Your task to perform on an android device: Go to network settings Image 0: 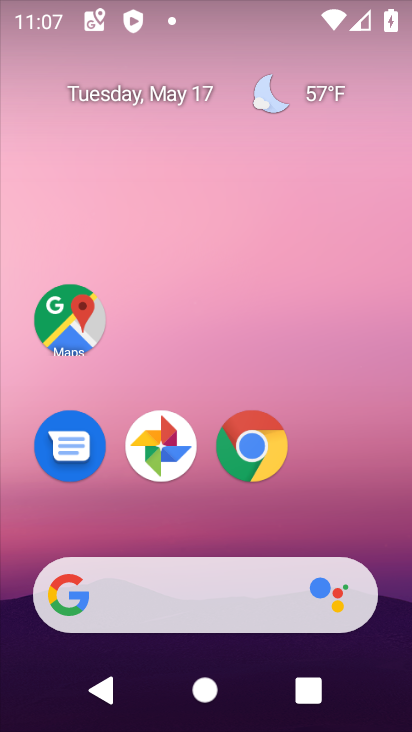
Step 0: drag from (231, 604) to (253, 147)
Your task to perform on an android device: Go to network settings Image 1: 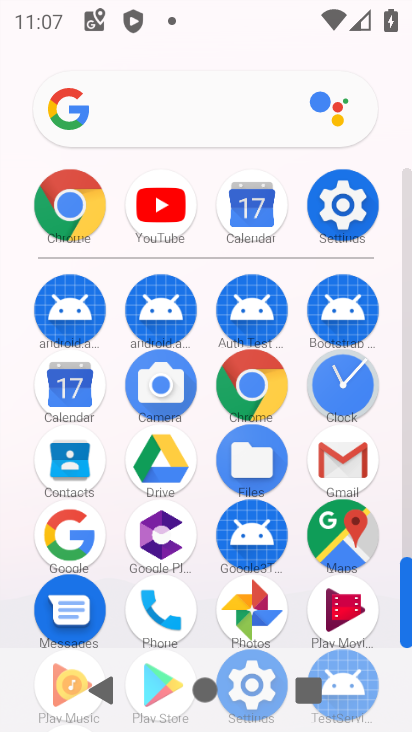
Step 1: click (339, 203)
Your task to perform on an android device: Go to network settings Image 2: 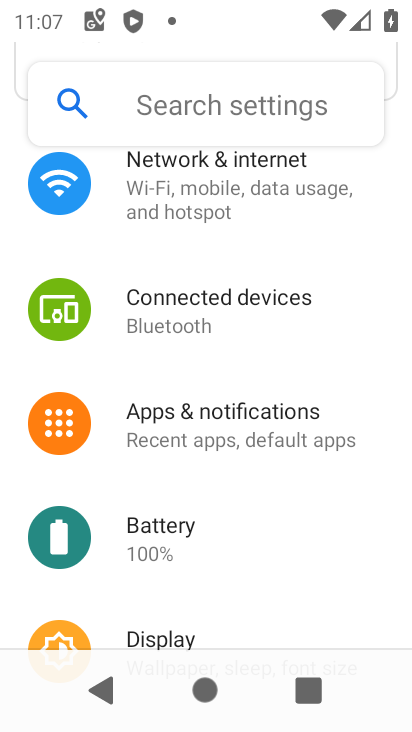
Step 2: click (207, 191)
Your task to perform on an android device: Go to network settings Image 3: 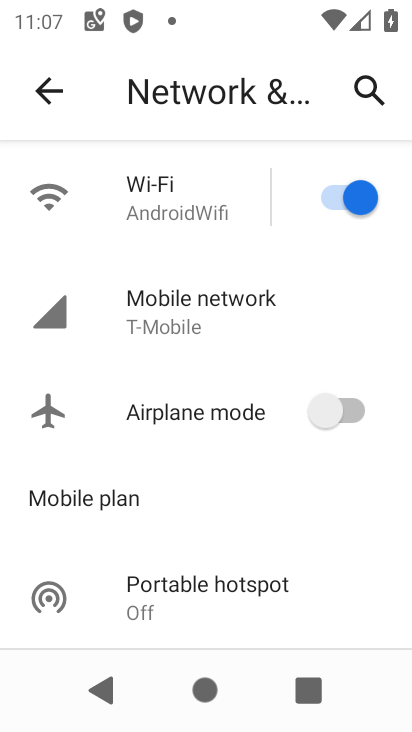
Step 3: task complete